Your task to perform on an android device: Open location settings Image 0: 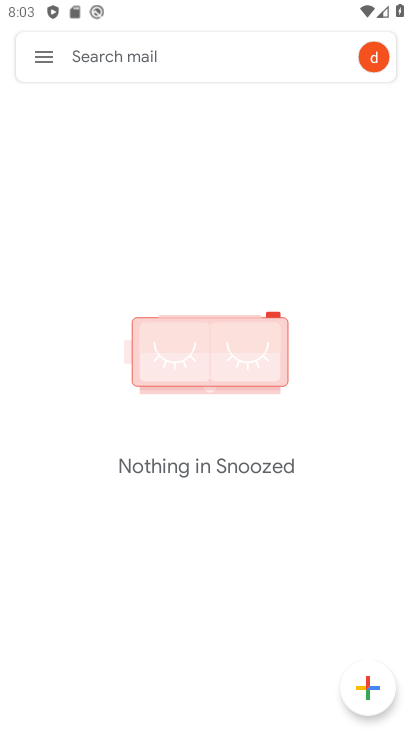
Step 0: press home button
Your task to perform on an android device: Open location settings Image 1: 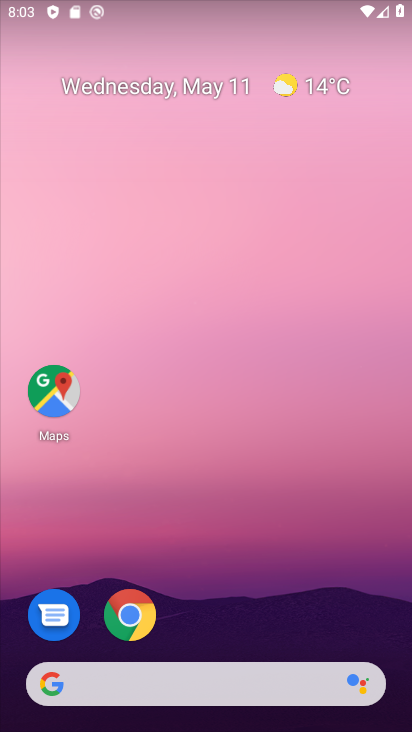
Step 1: drag from (207, 609) to (264, 203)
Your task to perform on an android device: Open location settings Image 2: 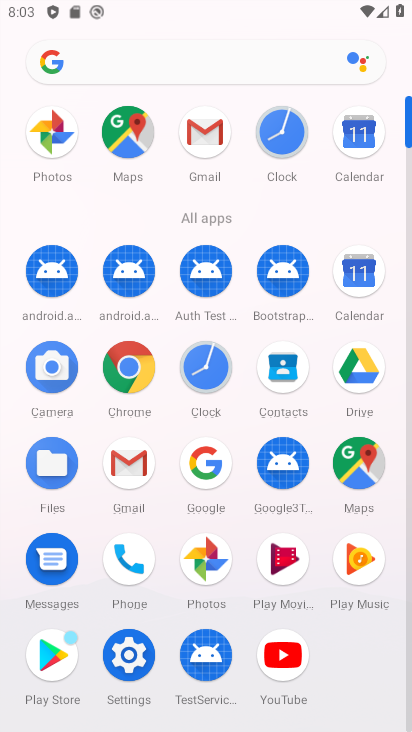
Step 2: click (124, 664)
Your task to perform on an android device: Open location settings Image 3: 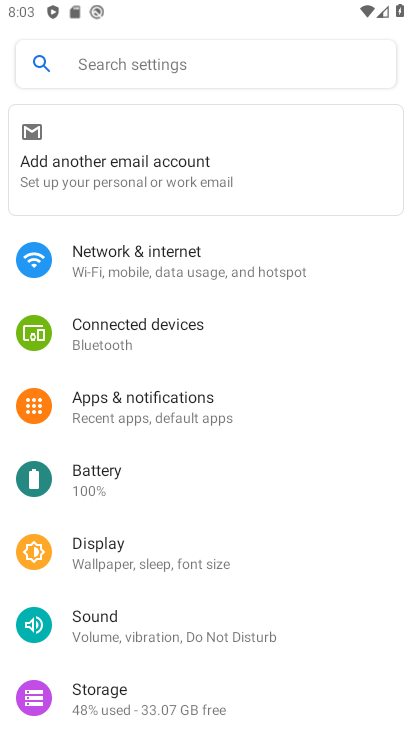
Step 3: drag from (234, 567) to (232, 220)
Your task to perform on an android device: Open location settings Image 4: 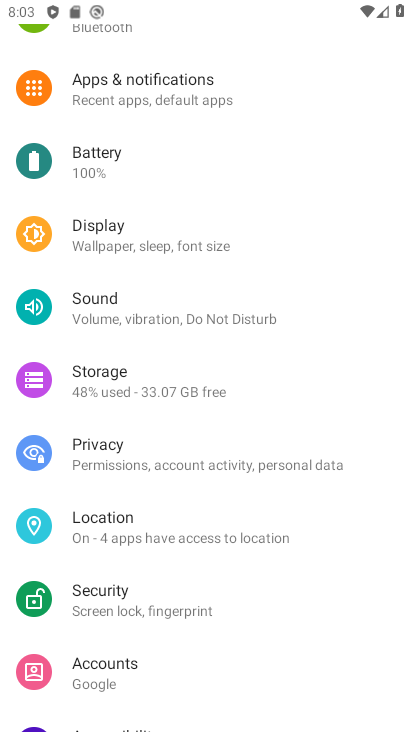
Step 4: click (184, 524)
Your task to perform on an android device: Open location settings Image 5: 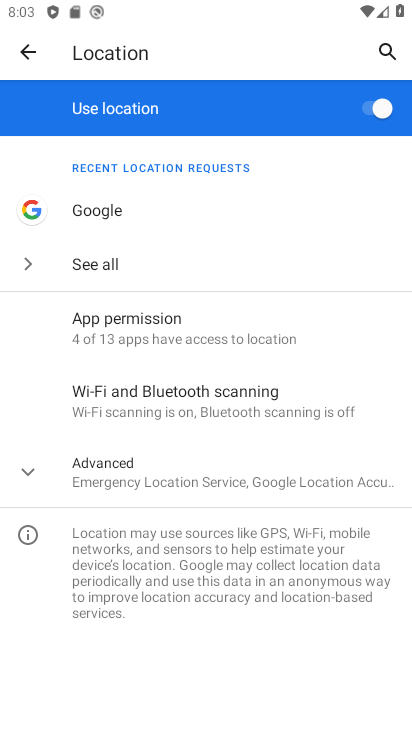
Step 5: task complete